Your task to perform on an android device: Add "razer blade" to the cart on target Image 0: 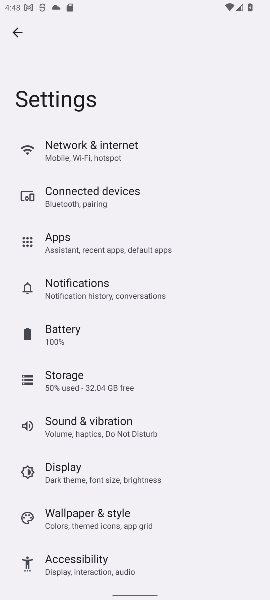
Step 0: press home button
Your task to perform on an android device: Add "razer blade" to the cart on target Image 1: 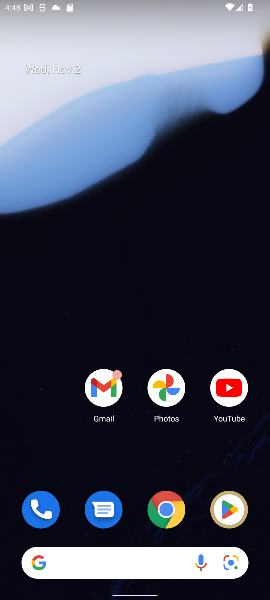
Step 1: click (96, 558)
Your task to perform on an android device: Add "razer blade" to the cart on target Image 2: 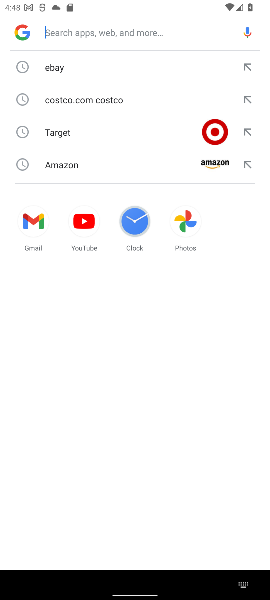
Step 2: click (60, 131)
Your task to perform on an android device: Add "razer blade" to the cart on target Image 3: 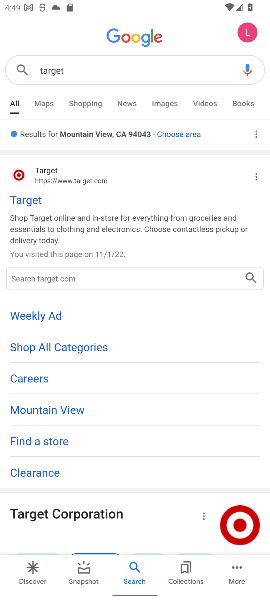
Step 3: click (30, 199)
Your task to perform on an android device: Add "razer blade" to the cart on target Image 4: 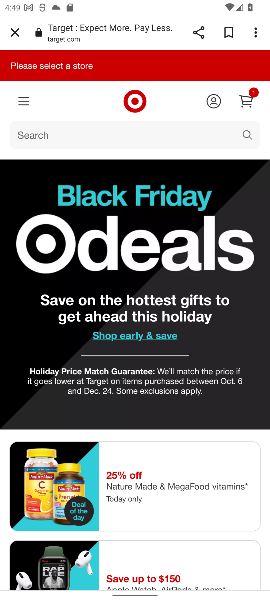
Step 4: click (72, 134)
Your task to perform on an android device: Add "razer blade" to the cart on target Image 5: 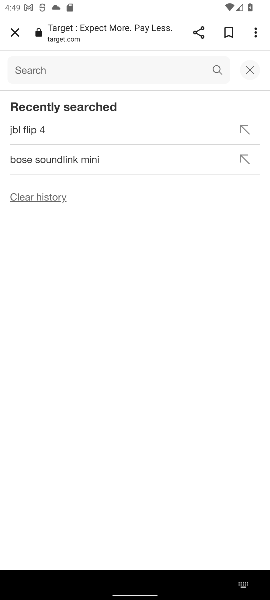
Step 5: type "razer blade"
Your task to perform on an android device: Add "razer blade" to the cart on target Image 6: 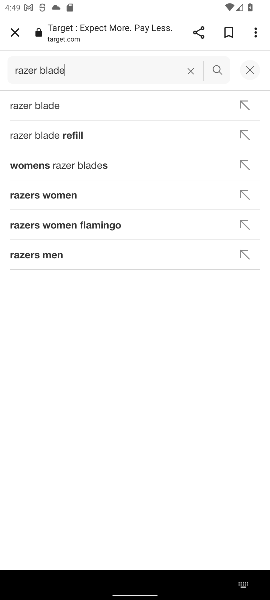
Step 6: click (62, 103)
Your task to perform on an android device: Add "razer blade" to the cart on target Image 7: 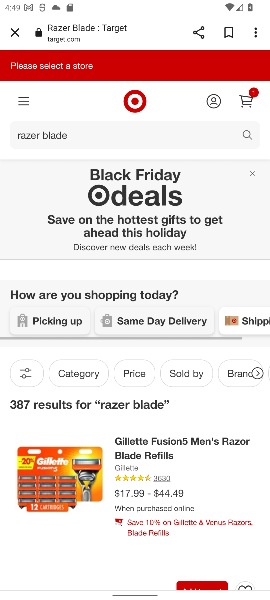
Step 7: drag from (190, 405) to (185, 244)
Your task to perform on an android device: Add "razer blade" to the cart on target Image 8: 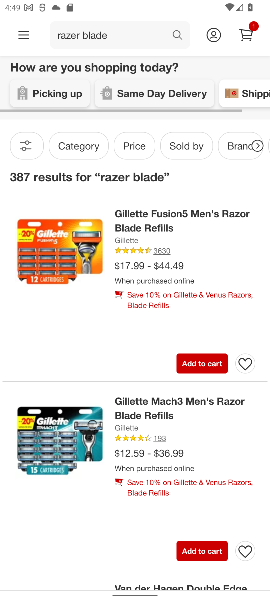
Step 8: click (195, 363)
Your task to perform on an android device: Add "razer blade" to the cart on target Image 9: 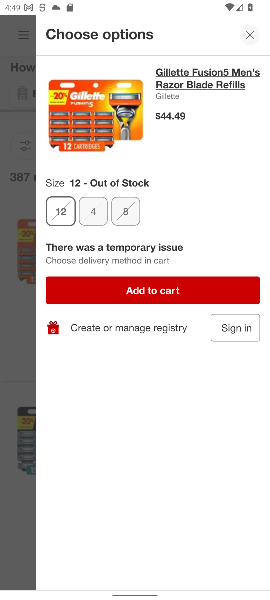
Step 9: click (163, 292)
Your task to perform on an android device: Add "razer blade" to the cart on target Image 10: 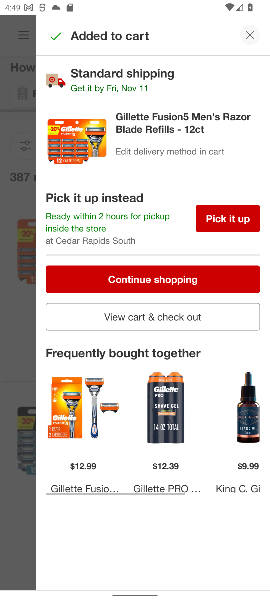
Step 10: task complete